Your task to perform on an android device: Open ESPN.com Image 0: 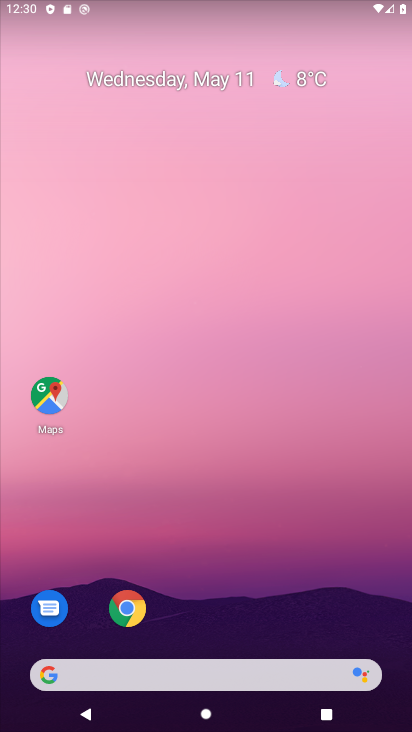
Step 0: click (132, 625)
Your task to perform on an android device: Open ESPN.com Image 1: 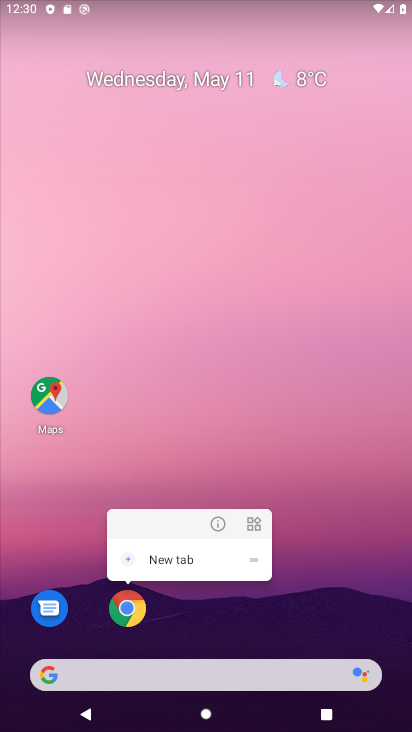
Step 1: click (164, 632)
Your task to perform on an android device: Open ESPN.com Image 2: 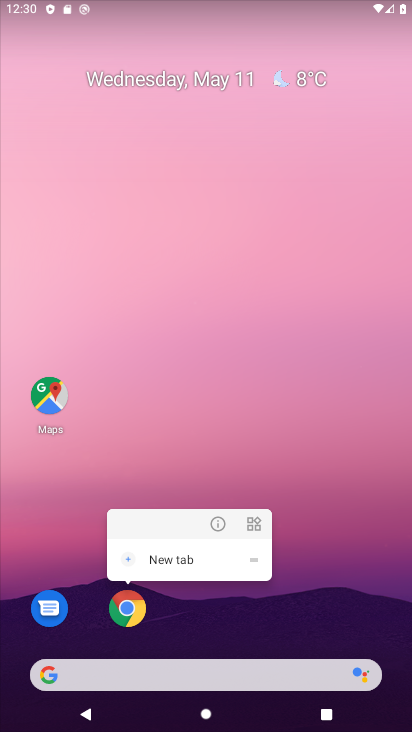
Step 2: click (124, 612)
Your task to perform on an android device: Open ESPN.com Image 3: 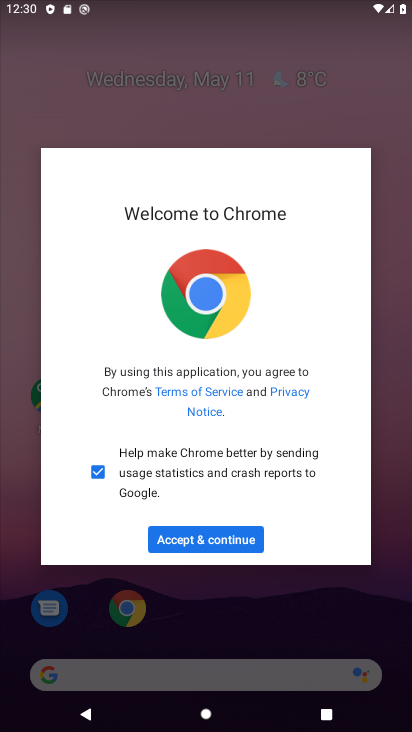
Step 3: click (207, 546)
Your task to perform on an android device: Open ESPN.com Image 4: 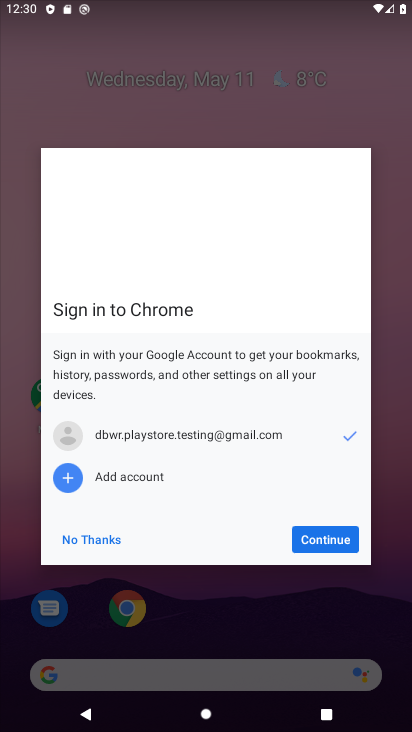
Step 4: click (320, 538)
Your task to perform on an android device: Open ESPN.com Image 5: 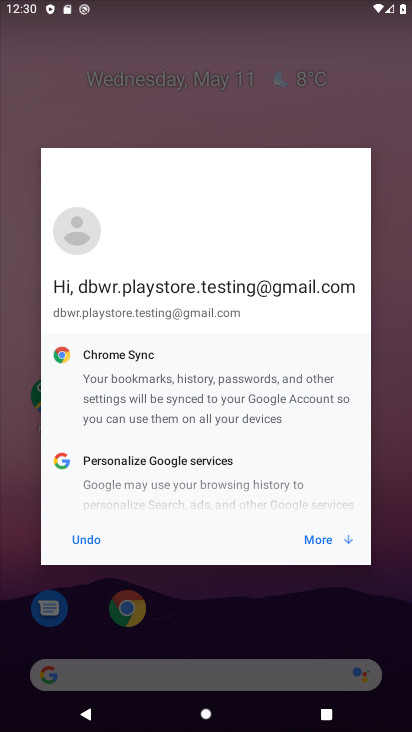
Step 5: click (328, 542)
Your task to perform on an android device: Open ESPN.com Image 6: 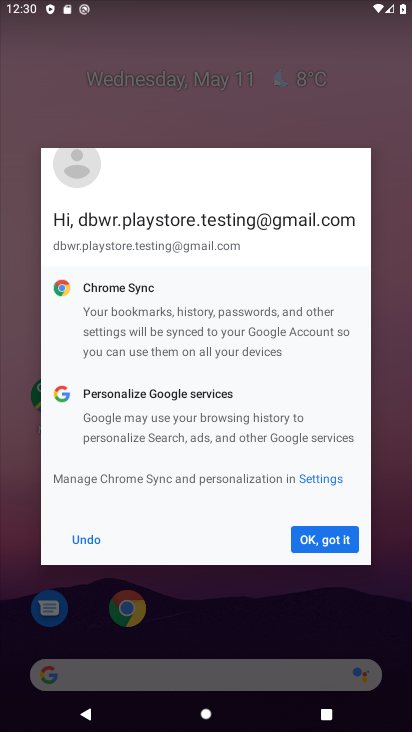
Step 6: click (312, 537)
Your task to perform on an android device: Open ESPN.com Image 7: 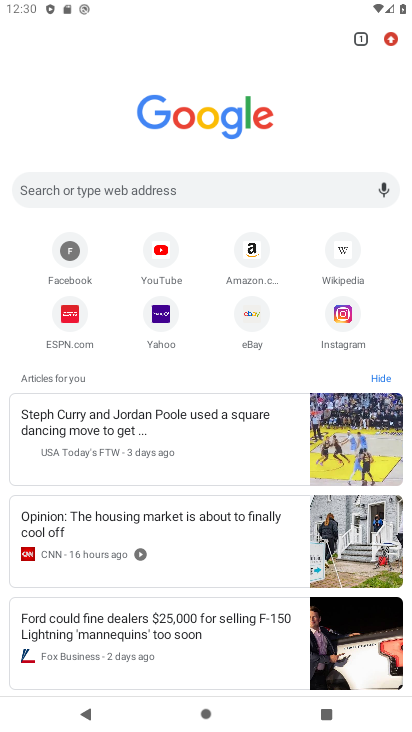
Step 7: click (55, 337)
Your task to perform on an android device: Open ESPN.com Image 8: 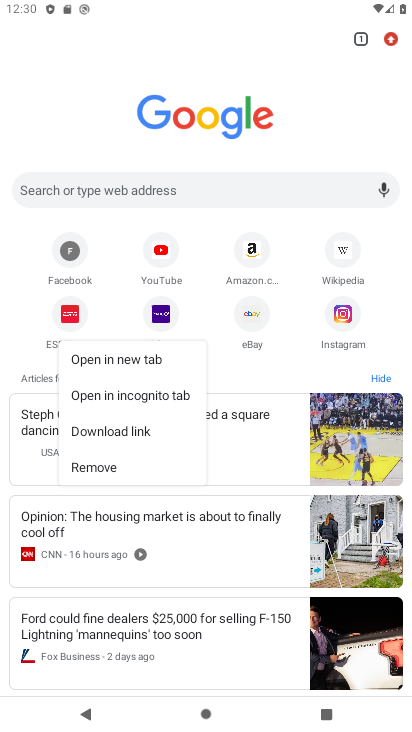
Step 8: click (66, 316)
Your task to perform on an android device: Open ESPN.com Image 9: 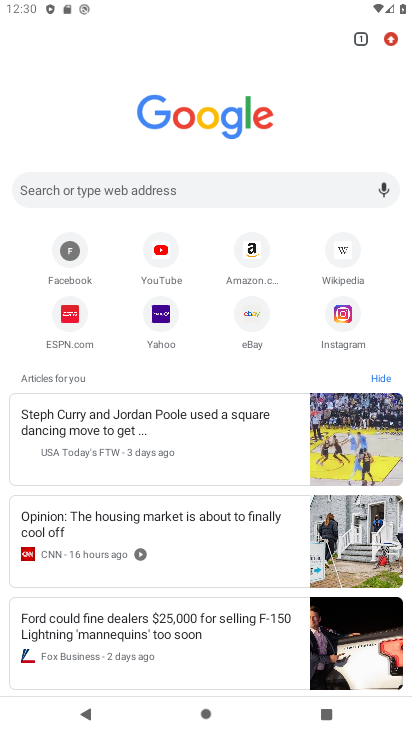
Step 9: click (60, 325)
Your task to perform on an android device: Open ESPN.com Image 10: 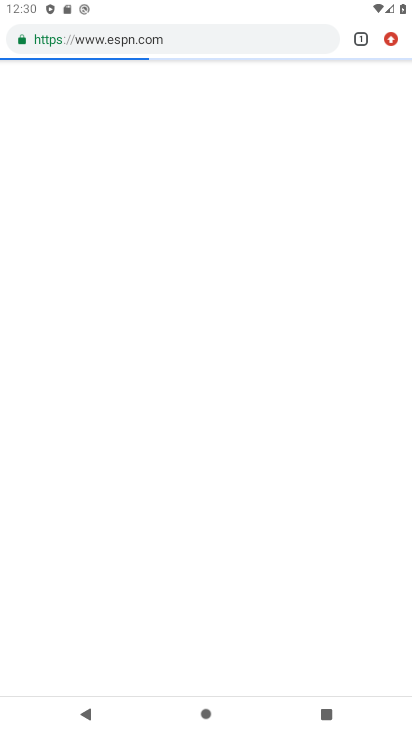
Step 10: click (69, 313)
Your task to perform on an android device: Open ESPN.com Image 11: 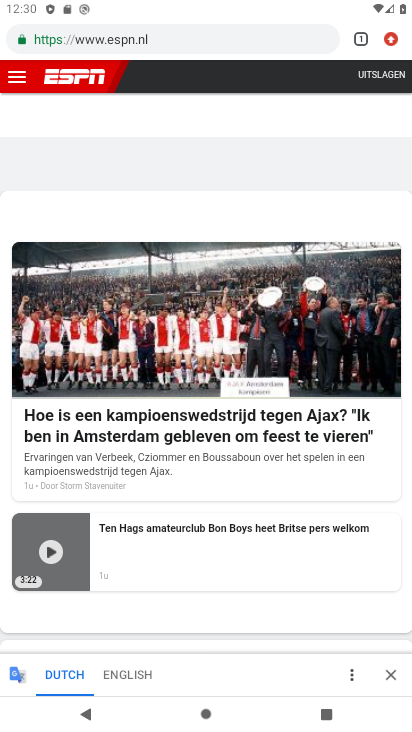
Step 11: task complete